Your task to perform on an android device: Go to calendar. Show me events next week Image 0: 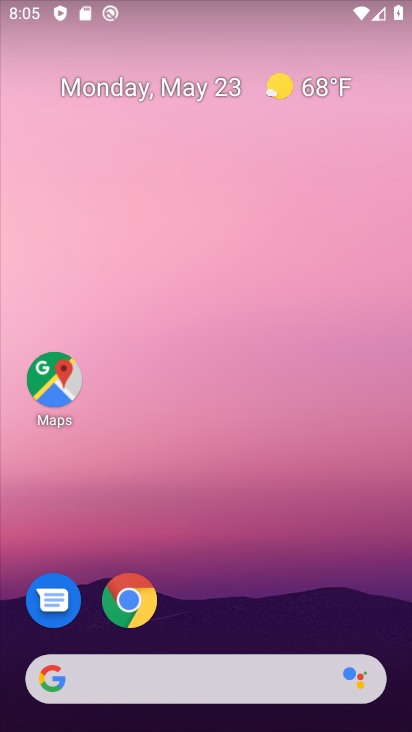
Step 0: drag from (164, 285) to (236, 114)
Your task to perform on an android device: Go to calendar. Show me events next week Image 1: 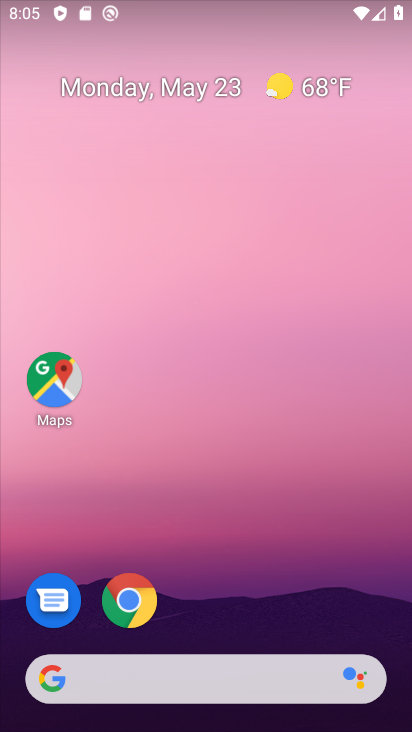
Step 1: drag from (29, 594) to (232, 26)
Your task to perform on an android device: Go to calendar. Show me events next week Image 2: 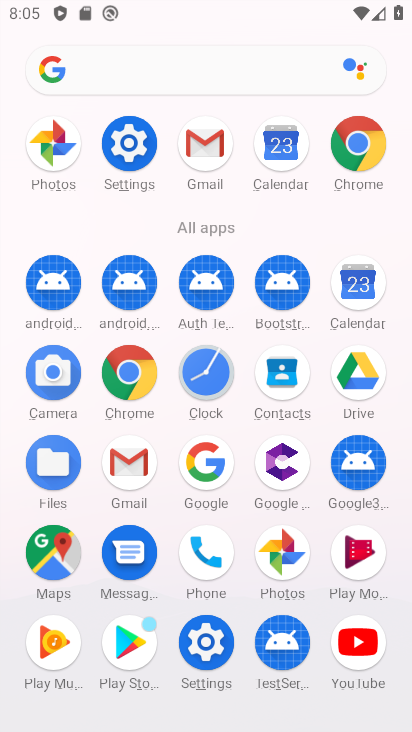
Step 2: click (269, 146)
Your task to perform on an android device: Go to calendar. Show me events next week Image 3: 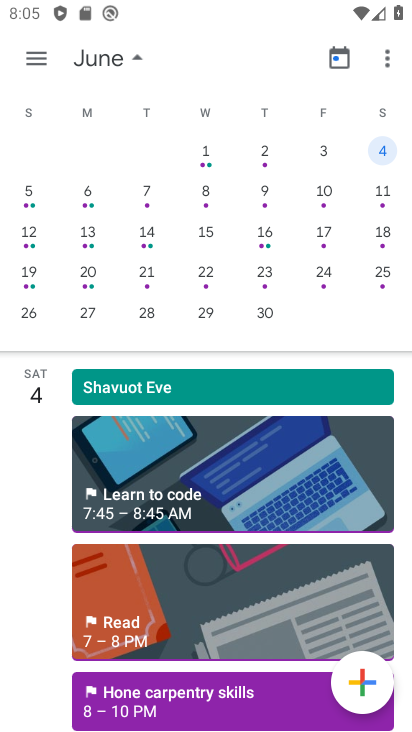
Step 3: drag from (8, 215) to (386, 194)
Your task to perform on an android device: Go to calendar. Show me events next week Image 4: 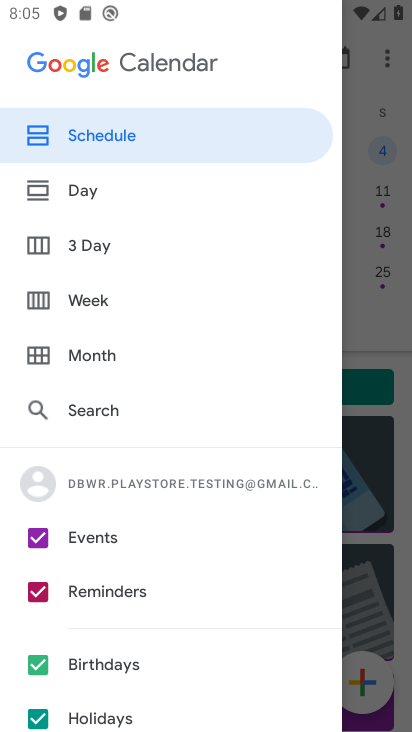
Step 4: click (361, 302)
Your task to perform on an android device: Go to calendar. Show me events next week Image 5: 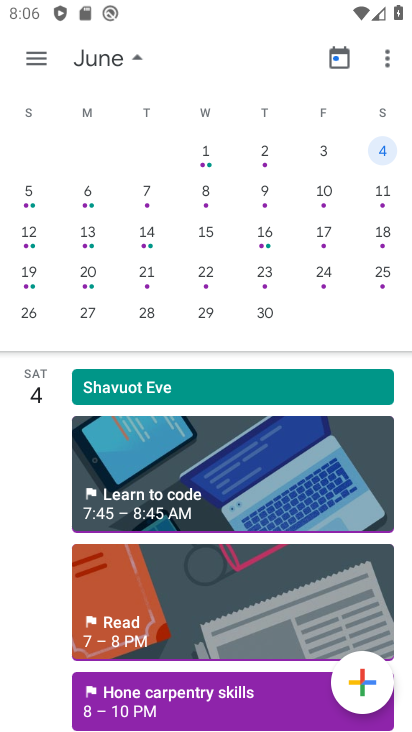
Step 5: drag from (162, 275) to (354, 293)
Your task to perform on an android device: Go to calendar. Show me events next week Image 6: 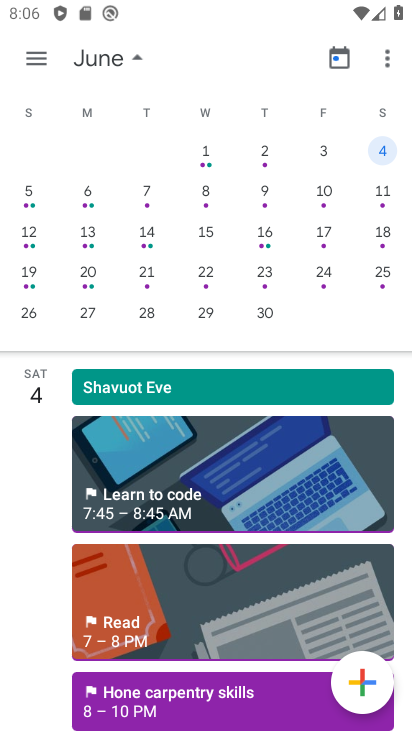
Step 6: drag from (41, 265) to (399, 245)
Your task to perform on an android device: Go to calendar. Show me events next week Image 7: 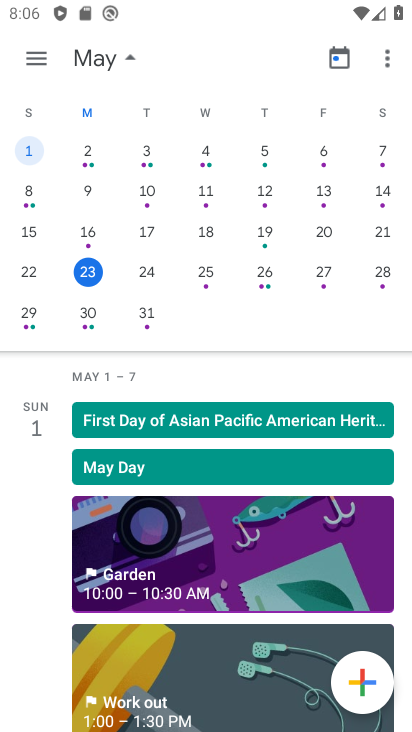
Step 7: click (96, 320)
Your task to perform on an android device: Go to calendar. Show me events next week Image 8: 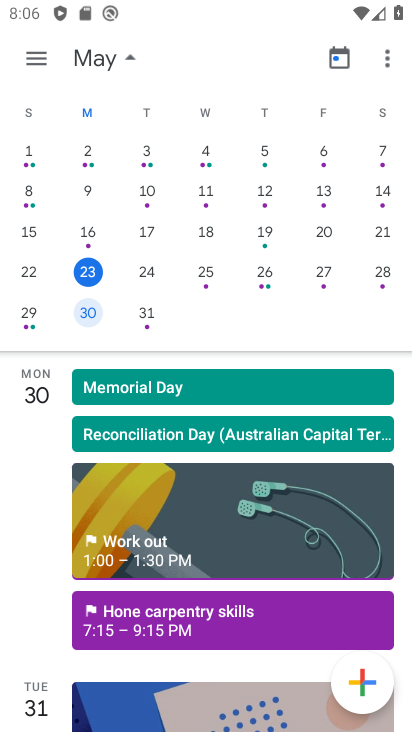
Step 8: click (155, 310)
Your task to perform on an android device: Go to calendar. Show me events next week Image 9: 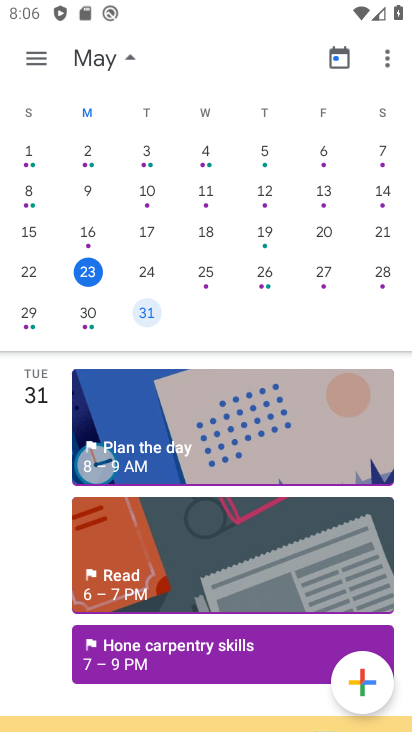
Step 9: task complete